Your task to perform on an android device: What's the weather going to be this weekend? Image 0: 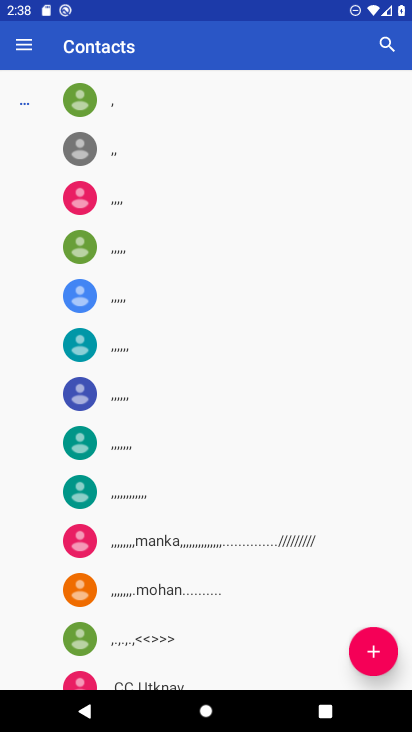
Step 0: press home button
Your task to perform on an android device: What's the weather going to be this weekend? Image 1: 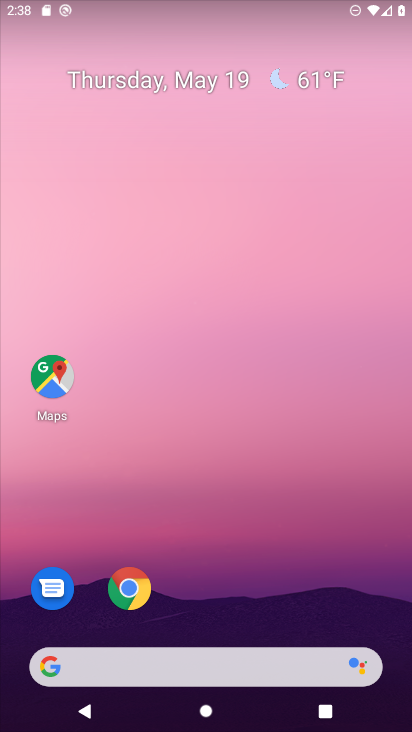
Step 1: click (348, 601)
Your task to perform on an android device: What's the weather going to be this weekend? Image 2: 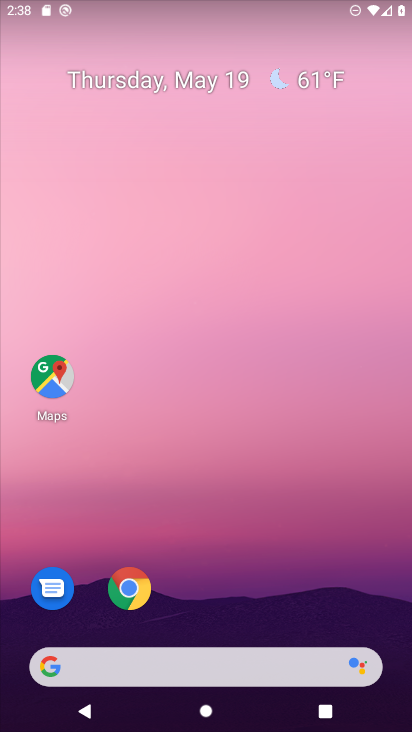
Step 2: click (300, 79)
Your task to perform on an android device: What's the weather going to be this weekend? Image 3: 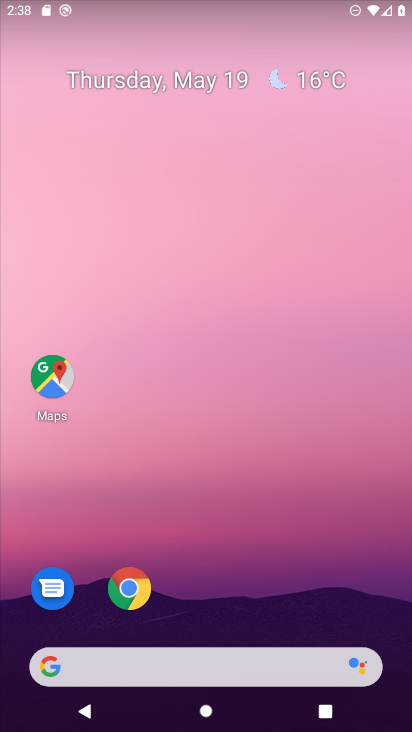
Step 3: click (307, 83)
Your task to perform on an android device: What's the weather going to be this weekend? Image 4: 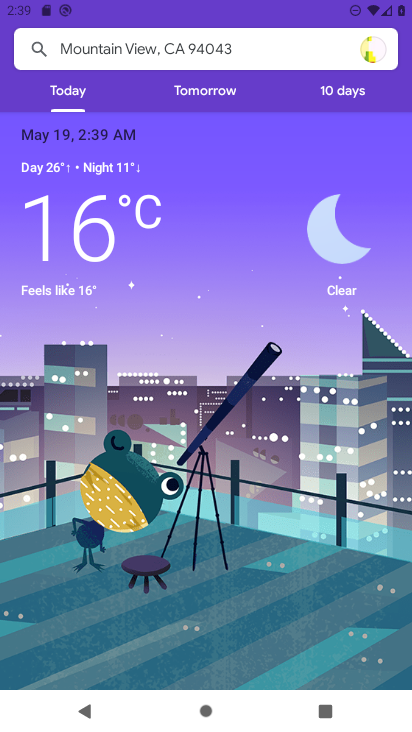
Step 4: click (323, 96)
Your task to perform on an android device: What's the weather going to be this weekend? Image 5: 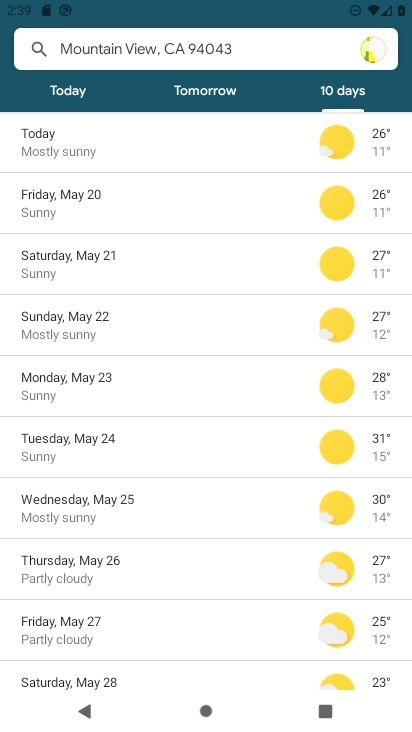
Step 5: task complete